Your task to perform on an android device: Open the stopwatch Image 0: 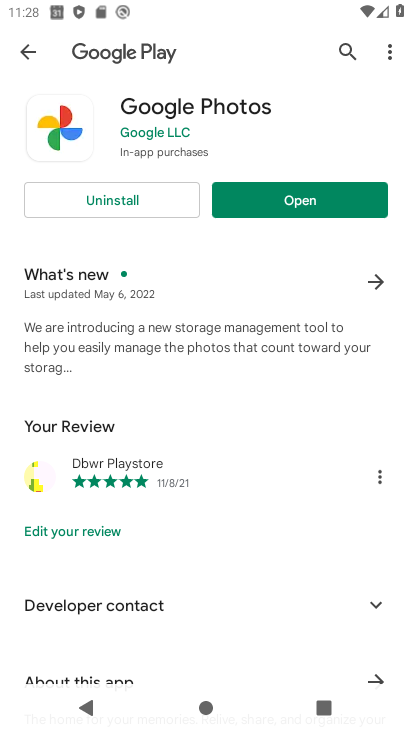
Step 0: press home button
Your task to perform on an android device: Open the stopwatch Image 1: 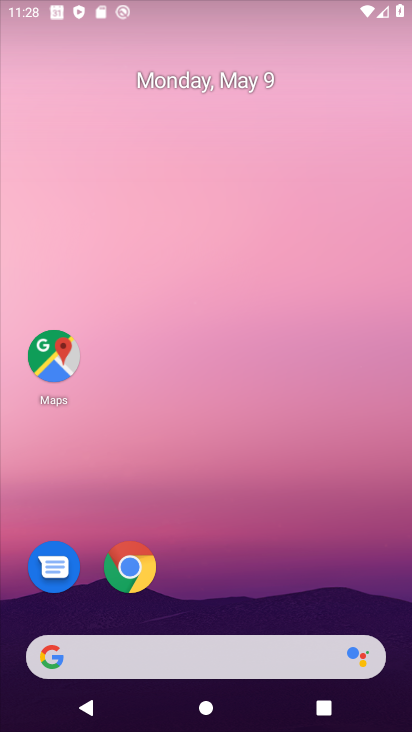
Step 1: drag from (381, 595) to (311, 35)
Your task to perform on an android device: Open the stopwatch Image 2: 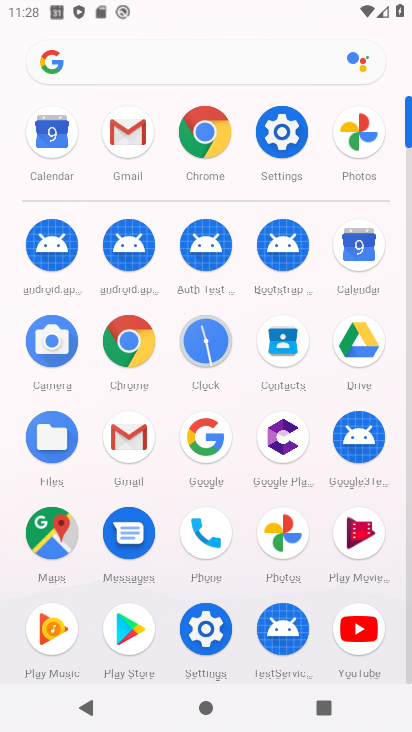
Step 2: click (209, 356)
Your task to perform on an android device: Open the stopwatch Image 3: 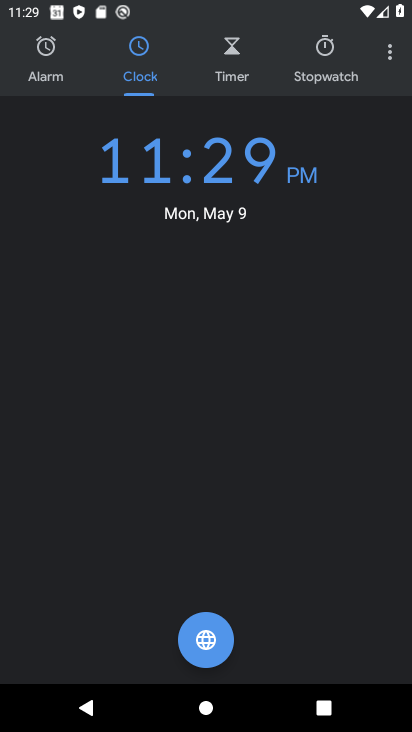
Step 3: click (349, 61)
Your task to perform on an android device: Open the stopwatch Image 4: 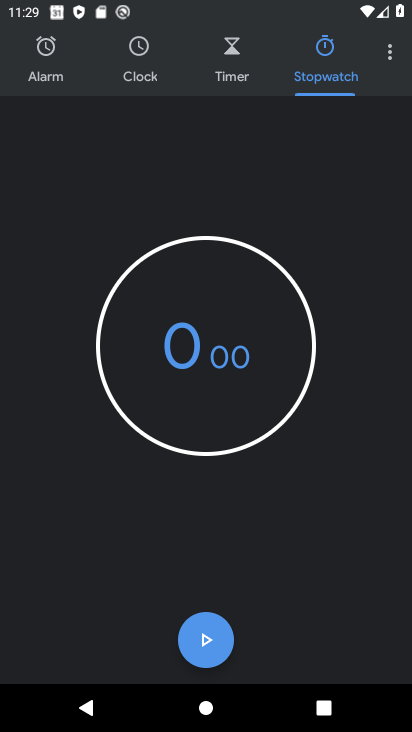
Step 4: task complete